Your task to perform on an android device: Open internet settings Image 0: 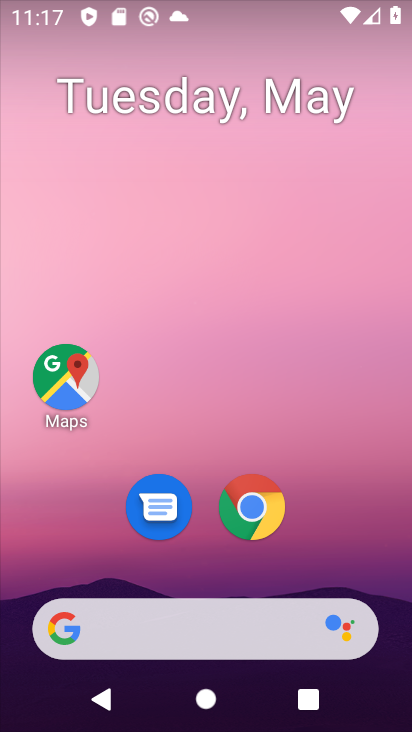
Step 0: drag from (276, 632) to (259, 174)
Your task to perform on an android device: Open internet settings Image 1: 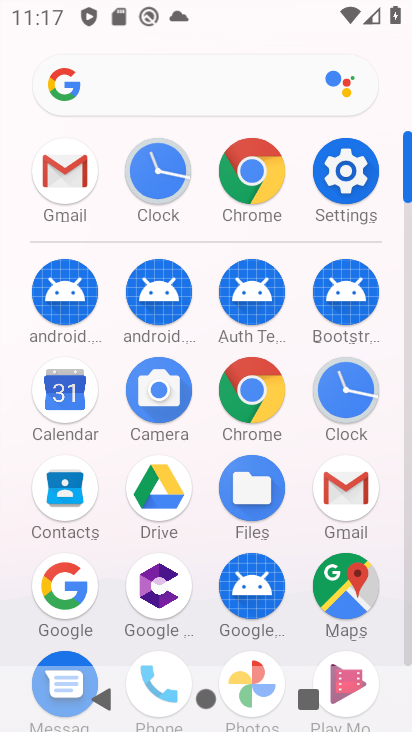
Step 1: click (337, 183)
Your task to perform on an android device: Open internet settings Image 2: 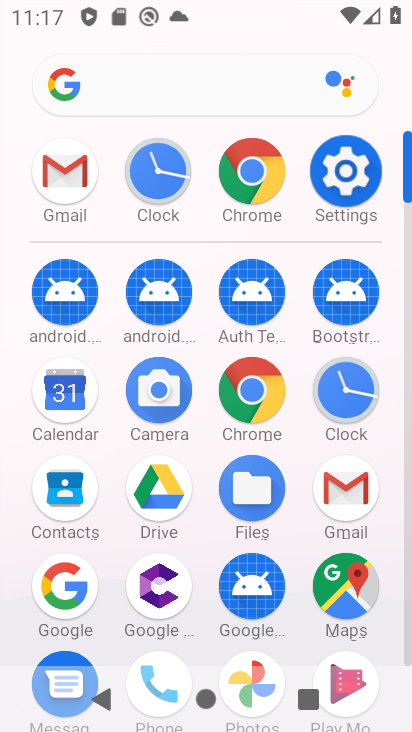
Step 2: click (337, 183)
Your task to perform on an android device: Open internet settings Image 3: 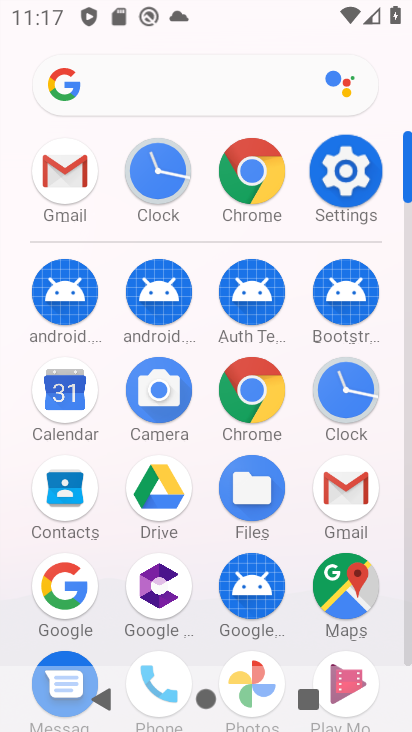
Step 3: click (337, 183)
Your task to perform on an android device: Open internet settings Image 4: 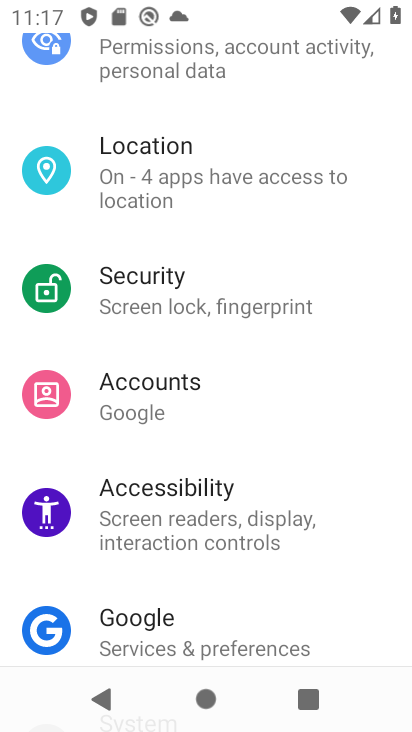
Step 4: click (339, 183)
Your task to perform on an android device: Open internet settings Image 5: 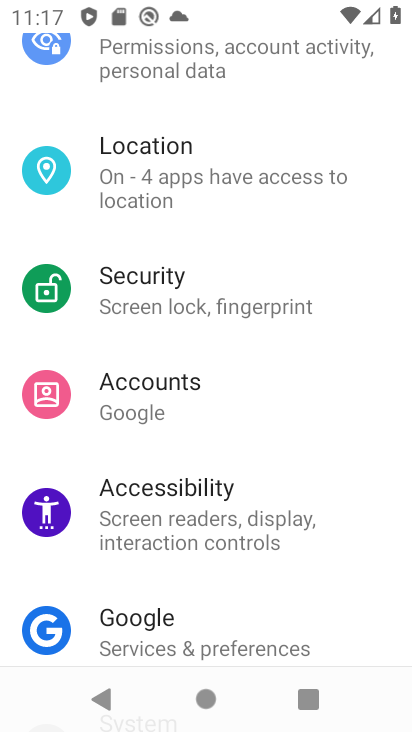
Step 5: drag from (198, 197) to (248, 484)
Your task to perform on an android device: Open internet settings Image 6: 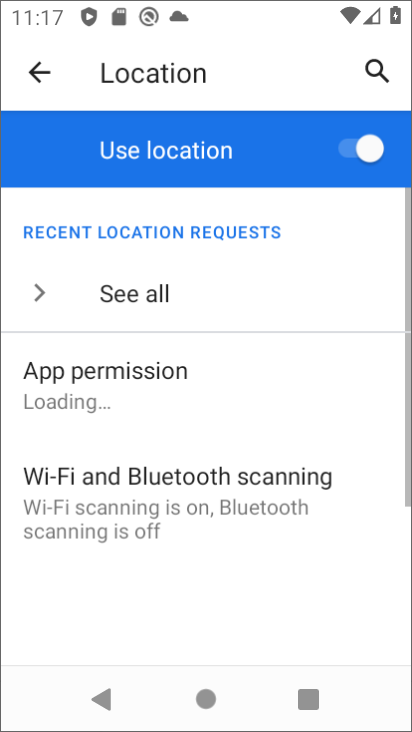
Step 6: drag from (239, 235) to (304, 575)
Your task to perform on an android device: Open internet settings Image 7: 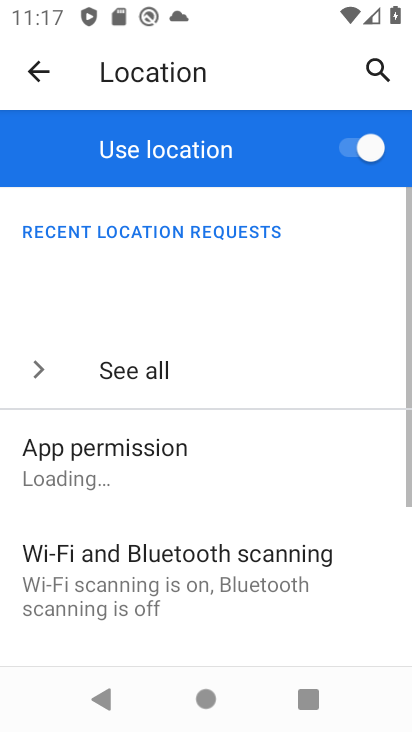
Step 7: drag from (260, 190) to (310, 660)
Your task to perform on an android device: Open internet settings Image 8: 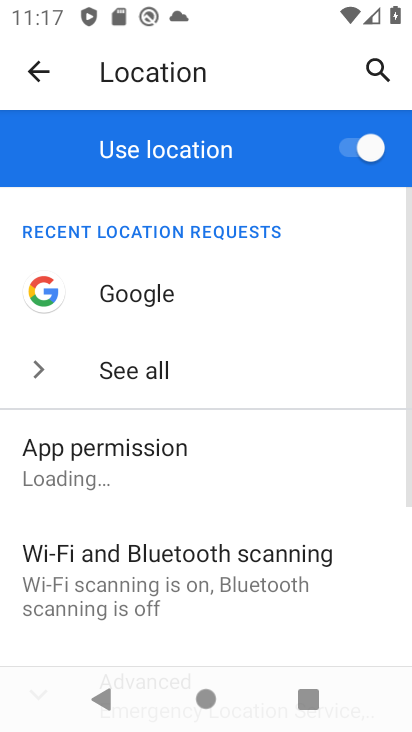
Step 8: click (44, 74)
Your task to perform on an android device: Open internet settings Image 9: 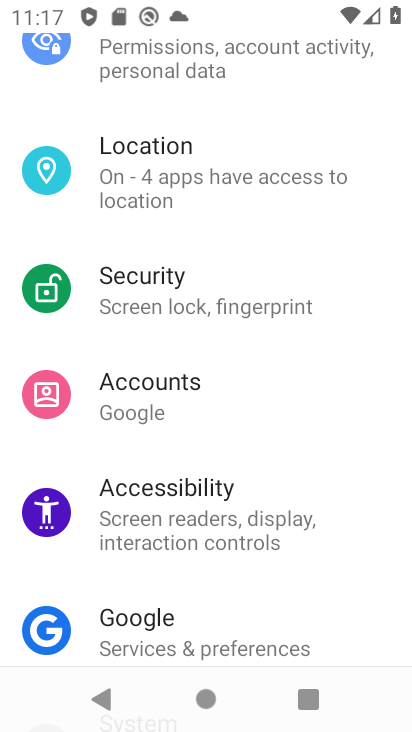
Step 9: drag from (172, 168) to (251, 423)
Your task to perform on an android device: Open internet settings Image 10: 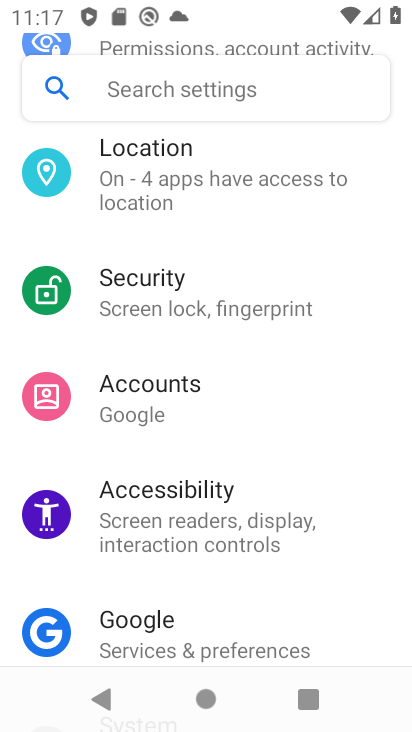
Step 10: drag from (201, 136) to (269, 595)
Your task to perform on an android device: Open internet settings Image 11: 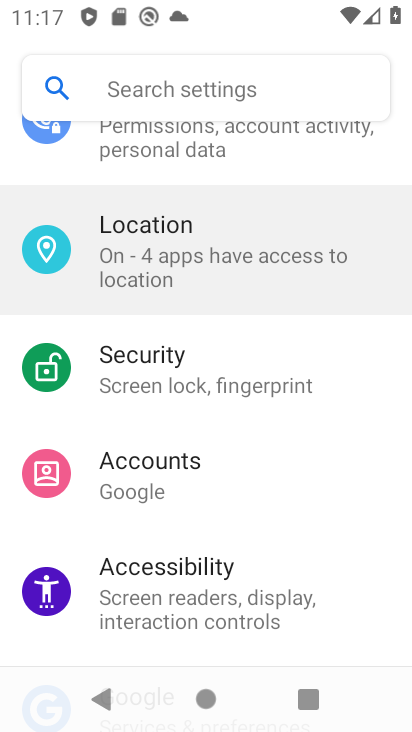
Step 11: drag from (199, 190) to (199, 561)
Your task to perform on an android device: Open internet settings Image 12: 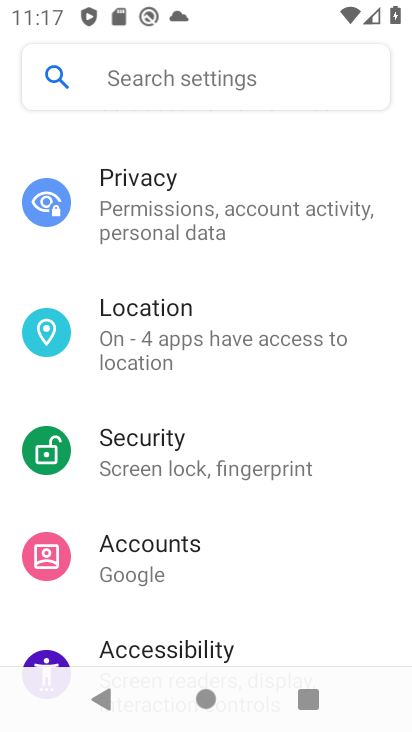
Step 12: drag from (191, 216) to (262, 645)
Your task to perform on an android device: Open internet settings Image 13: 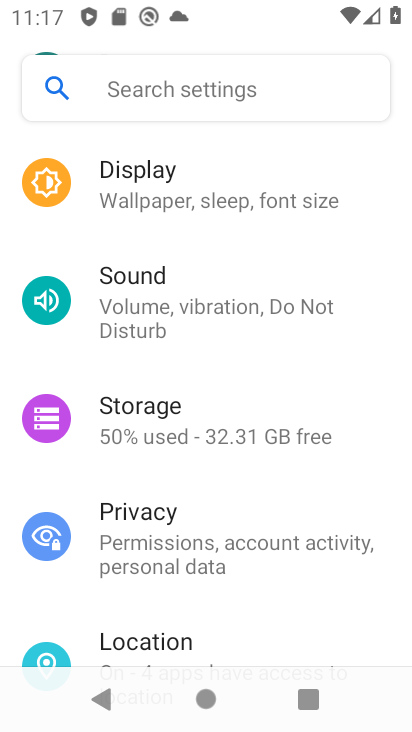
Step 13: drag from (236, 264) to (284, 605)
Your task to perform on an android device: Open internet settings Image 14: 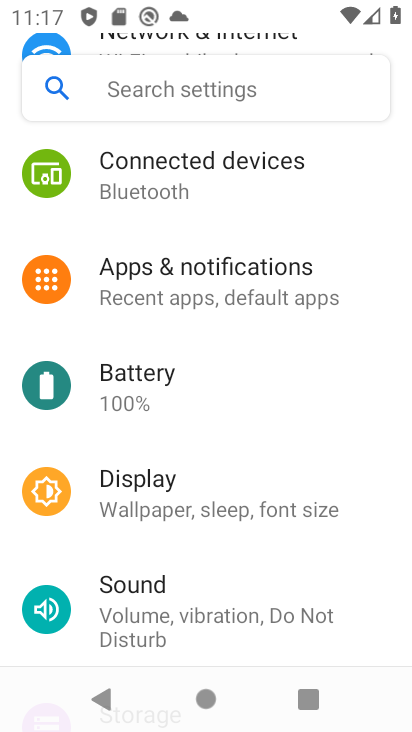
Step 14: drag from (190, 218) to (218, 592)
Your task to perform on an android device: Open internet settings Image 15: 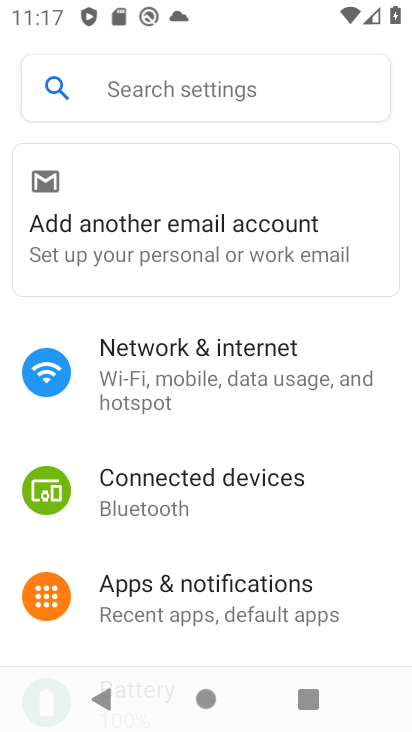
Step 15: click (170, 360)
Your task to perform on an android device: Open internet settings Image 16: 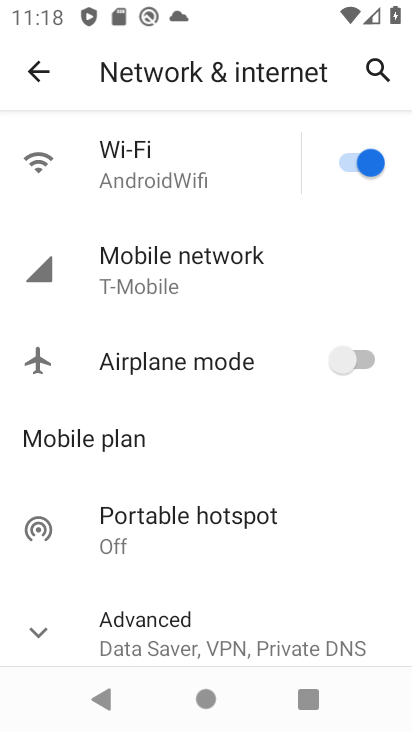
Step 16: task complete